Your task to perform on an android device: toggle javascript in the chrome app Image 0: 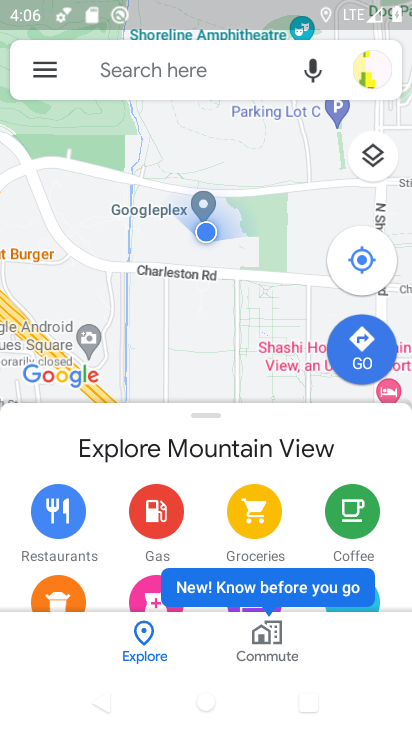
Step 0: press home button
Your task to perform on an android device: toggle javascript in the chrome app Image 1: 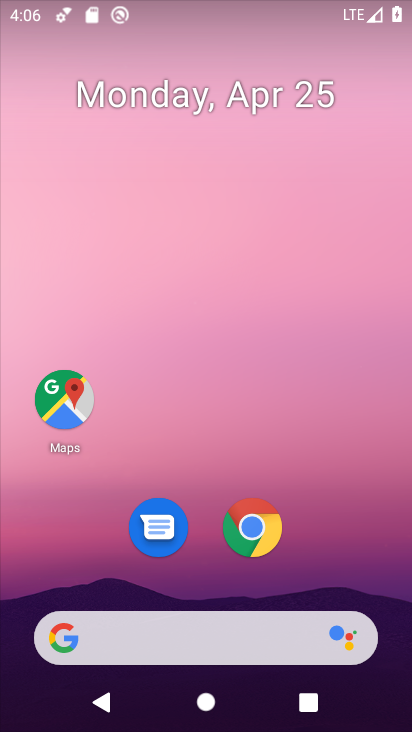
Step 1: click (248, 533)
Your task to perform on an android device: toggle javascript in the chrome app Image 2: 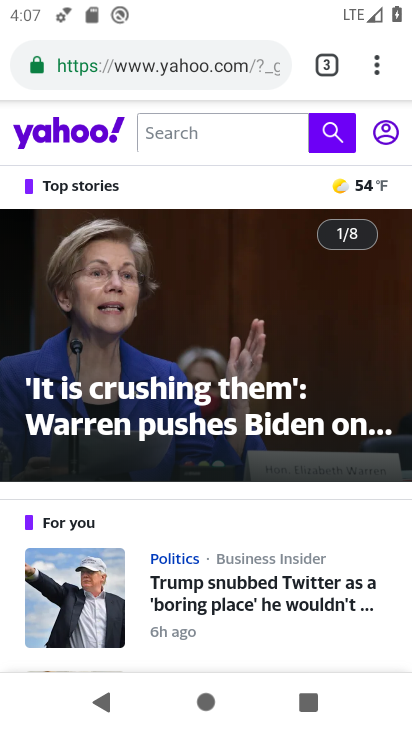
Step 2: click (376, 70)
Your task to perform on an android device: toggle javascript in the chrome app Image 3: 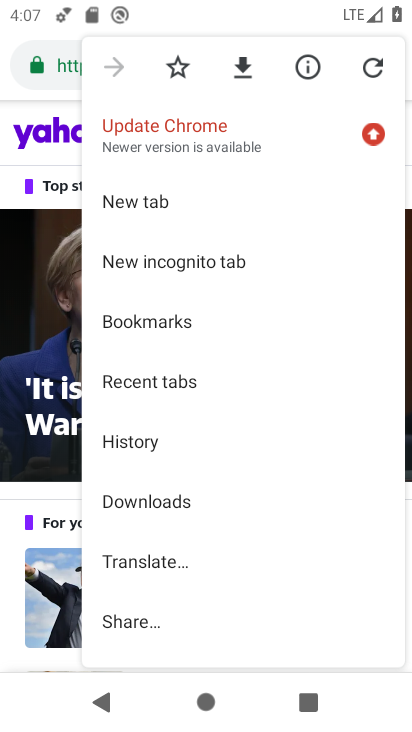
Step 3: drag from (229, 572) to (236, 200)
Your task to perform on an android device: toggle javascript in the chrome app Image 4: 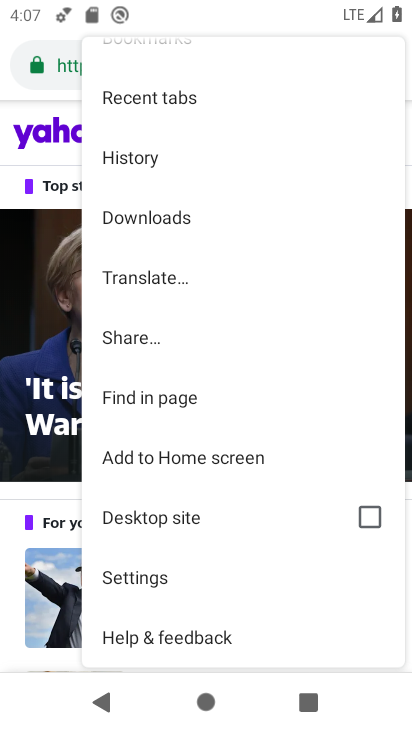
Step 4: click (154, 579)
Your task to perform on an android device: toggle javascript in the chrome app Image 5: 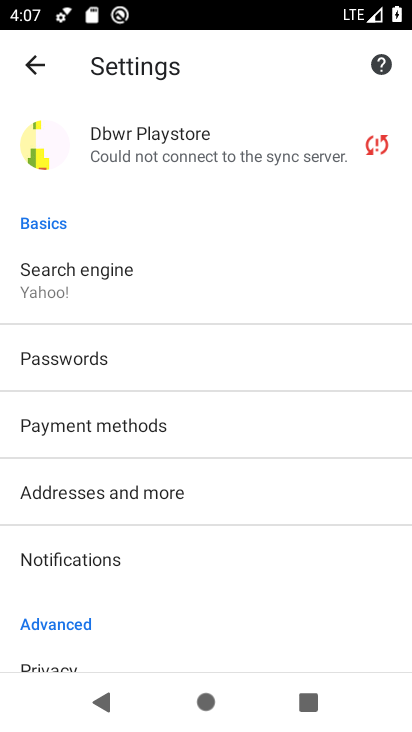
Step 5: drag from (255, 578) to (253, 209)
Your task to perform on an android device: toggle javascript in the chrome app Image 6: 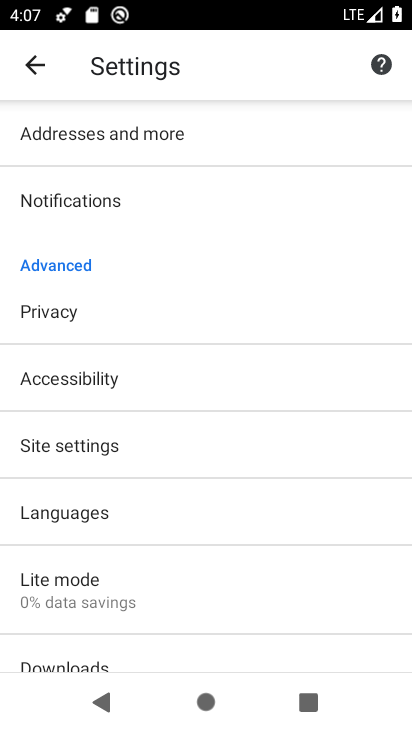
Step 6: click (89, 446)
Your task to perform on an android device: toggle javascript in the chrome app Image 7: 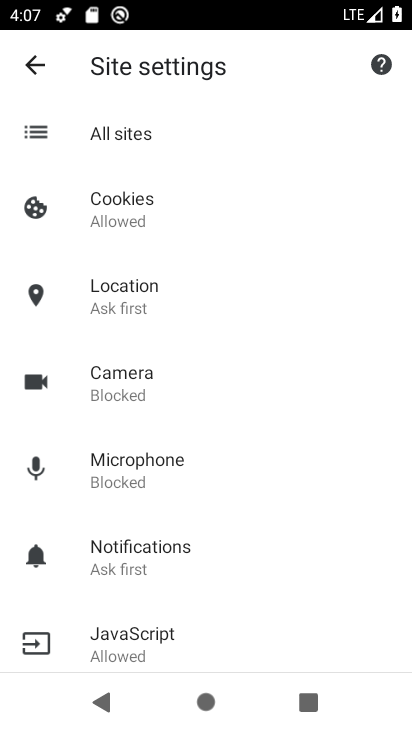
Step 7: drag from (234, 595) to (273, 198)
Your task to perform on an android device: toggle javascript in the chrome app Image 8: 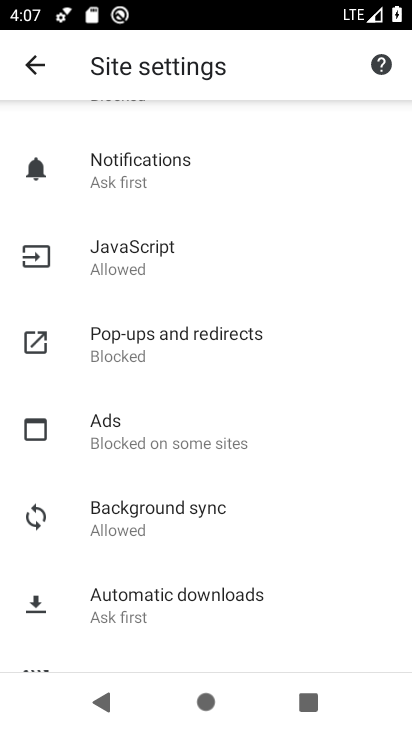
Step 8: click (119, 254)
Your task to perform on an android device: toggle javascript in the chrome app Image 9: 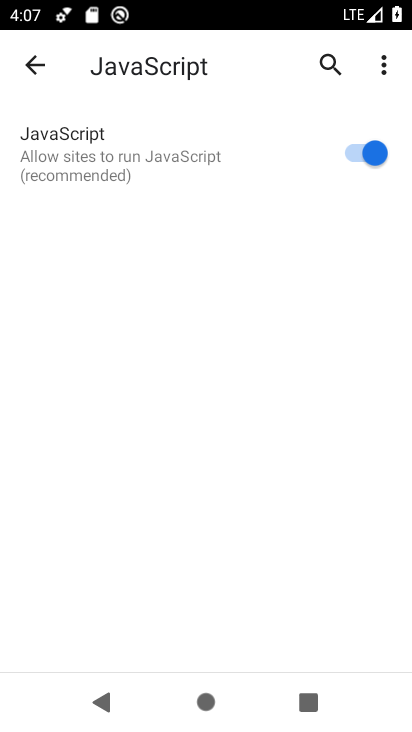
Step 9: click (347, 148)
Your task to perform on an android device: toggle javascript in the chrome app Image 10: 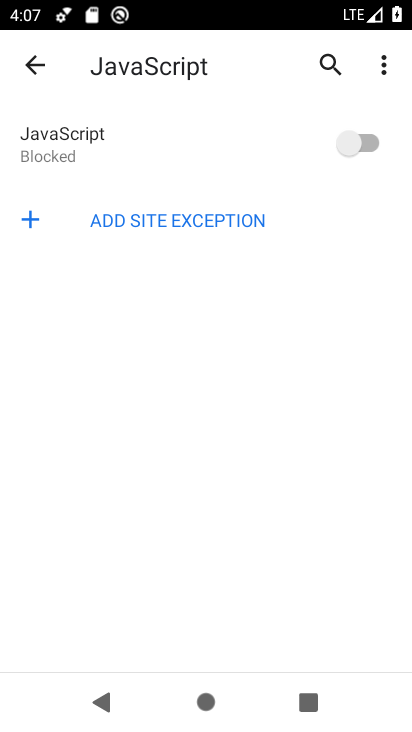
Step 10: task complete